Your task to perform on an android device: set an alarm Image 0: 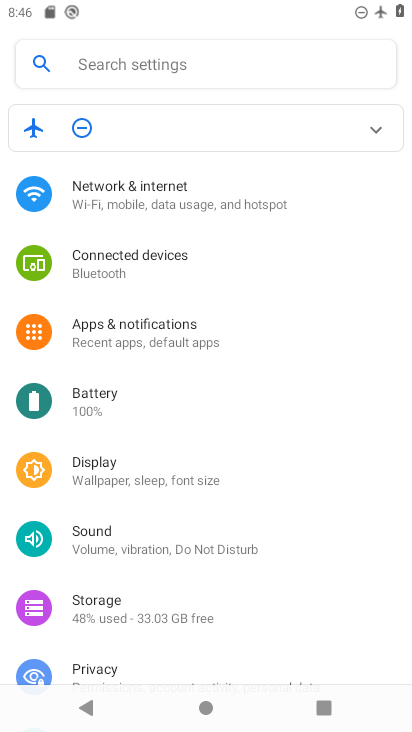
Step 0: press home button
Your task to perform on an android device: set an alarm Image 1: 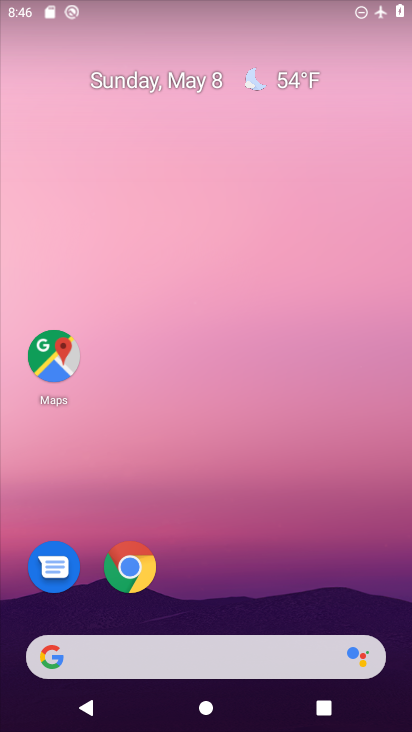
Step 1: drag from (340, 584) to (405, 60)
Your task to perform on an android device: set an alarm Image 2: 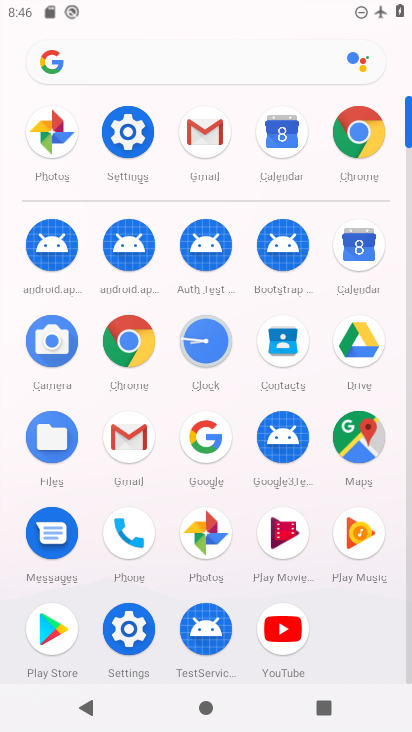
Step 2: click (209, 348)
Your task to perform on an android device: set an alarm Image 3: 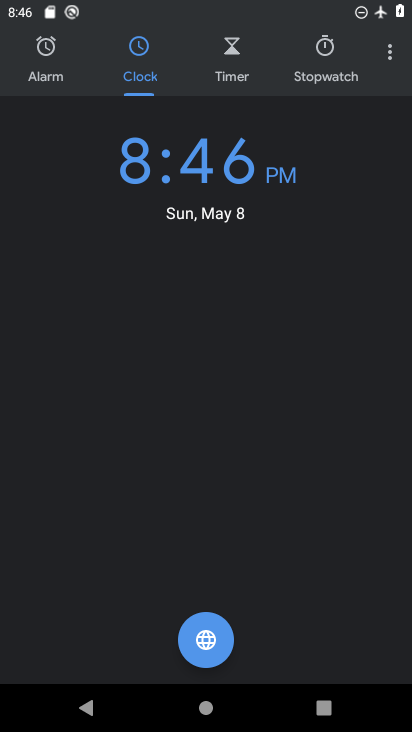
Step 3: click (61, 75)
Your task to perform on an android device: set an alarm Image 4: 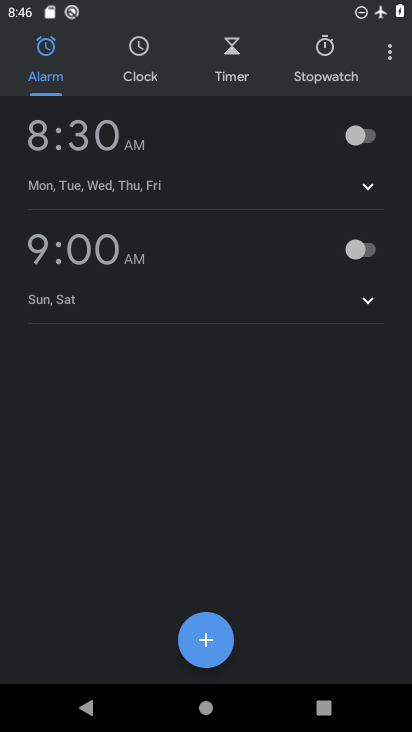
Step 4: click (360, 139)
Your task to perform on an android device: set an alarm Image 5: 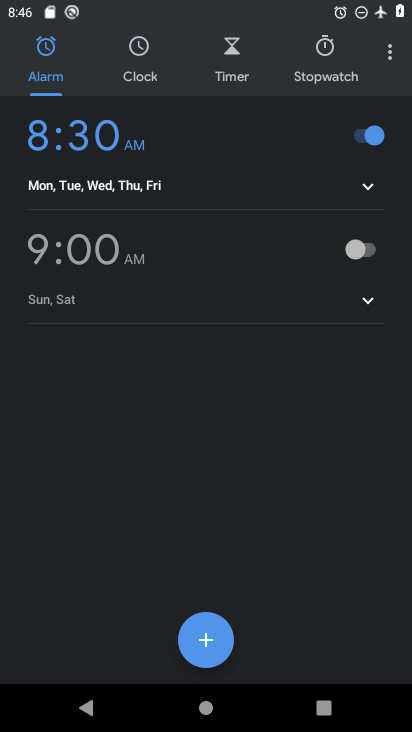
Step 5: task complete